Your task to perform on an android device: empty trash in google photos Image 0: 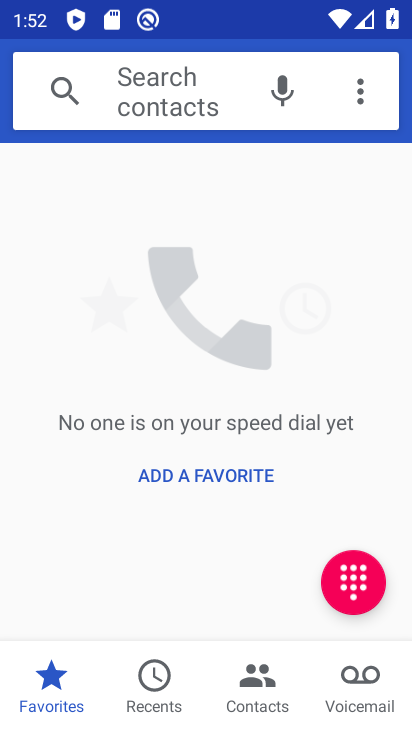
Step 0: press home button
Your task to perform on an android device: empty trash in google photos Image 1: 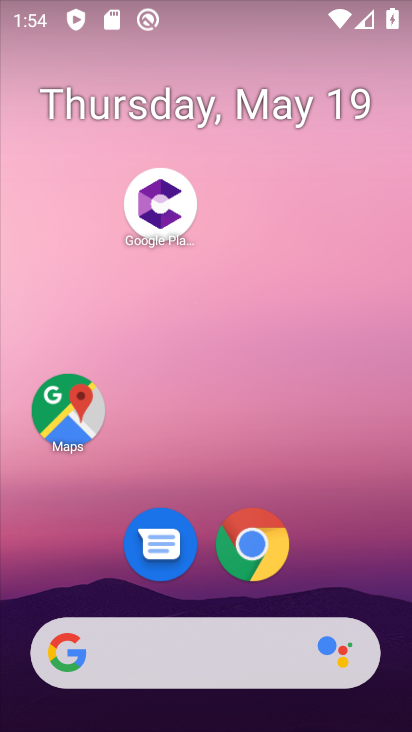
Step 1: drag from (217, 709) to (222, 177)
Your task to perform on an android device: empty trash in google photos Image 2: 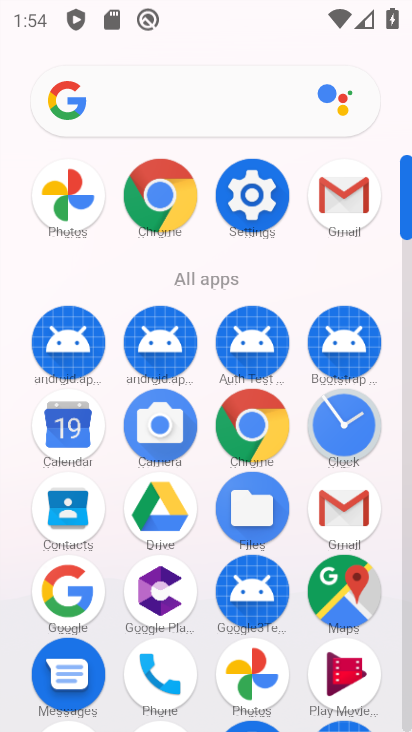
Step 2: click (249, 674)
Your task to perform on an android device: empty trash in google photos Image 3: 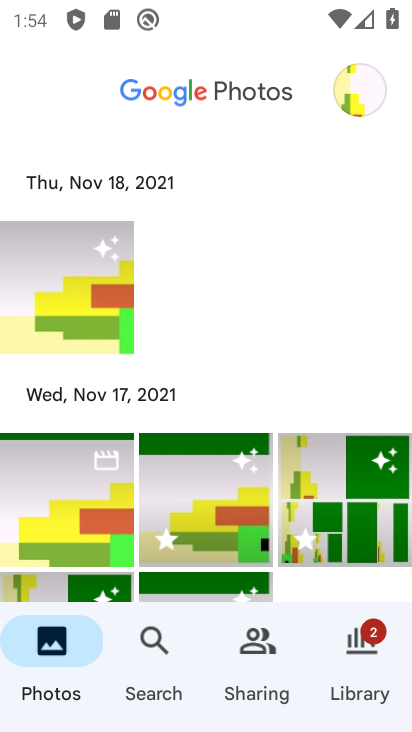
Step 3: click (149, 639)
Your task to perform on an android device: empty trash in google photos Image 4: 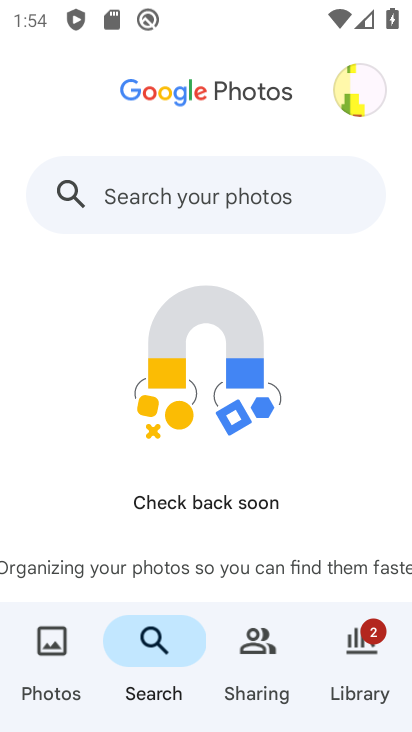
Step 4: click (167, 222)
Your task to perform on an android device: empty trash in google photos Image 5: 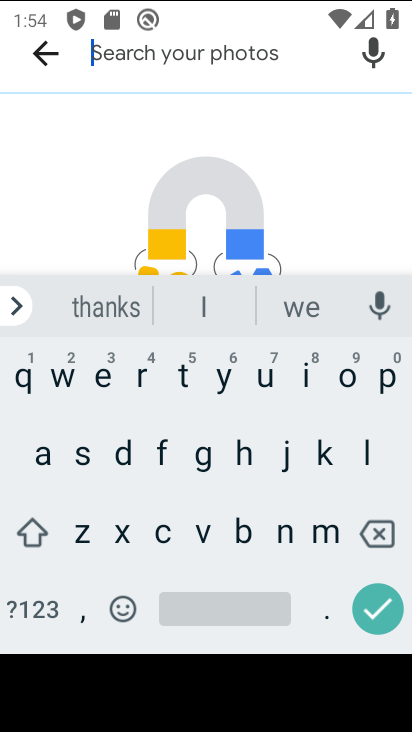
Step 5: click (178, 381)
Your task to perform on an android device: empty trash in google photos Image 6: 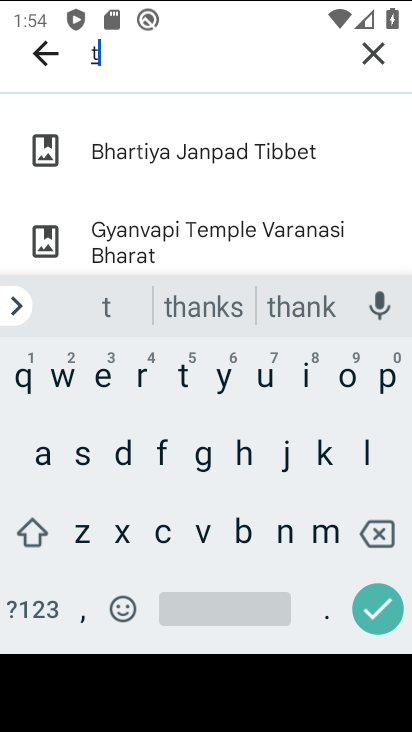
Step 6: click (142, 384)
Your task to perform on an android device: empty trash in google photos Image 7: 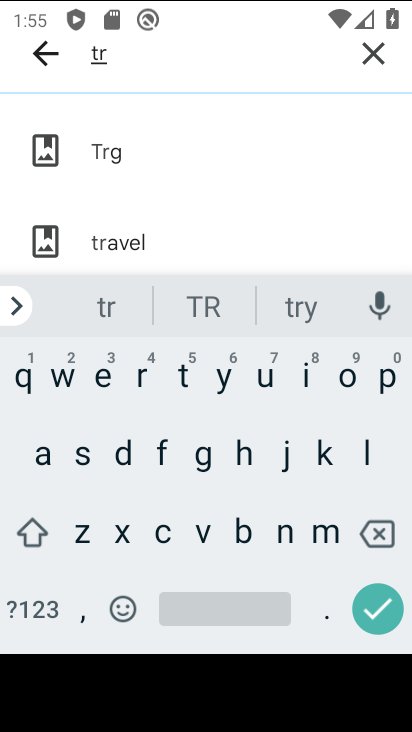
Step 7: click (42, 452)
Your task to perform on an android device: empty trash in google photos Image 8: 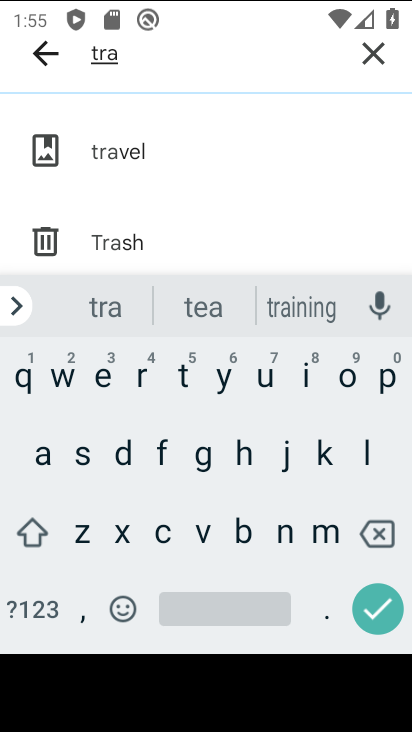
Step 8: click (142, 251)
Your task to perform on an android device: empty trash in google photos Image 9: 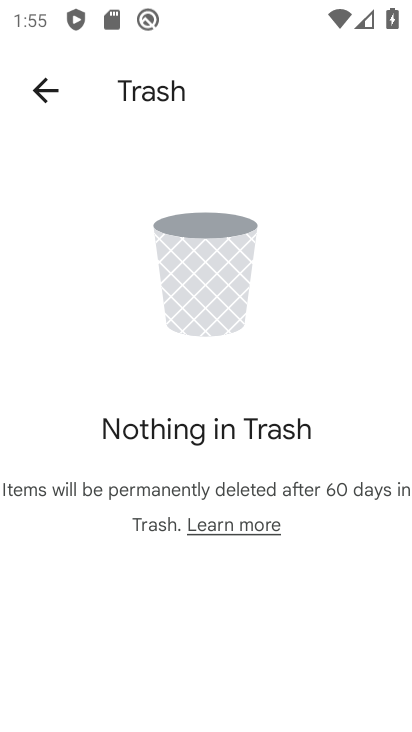
Step 9: task complete